Your task to perform on an android device: uninstall "DoorDash - Dasher" Image 0: 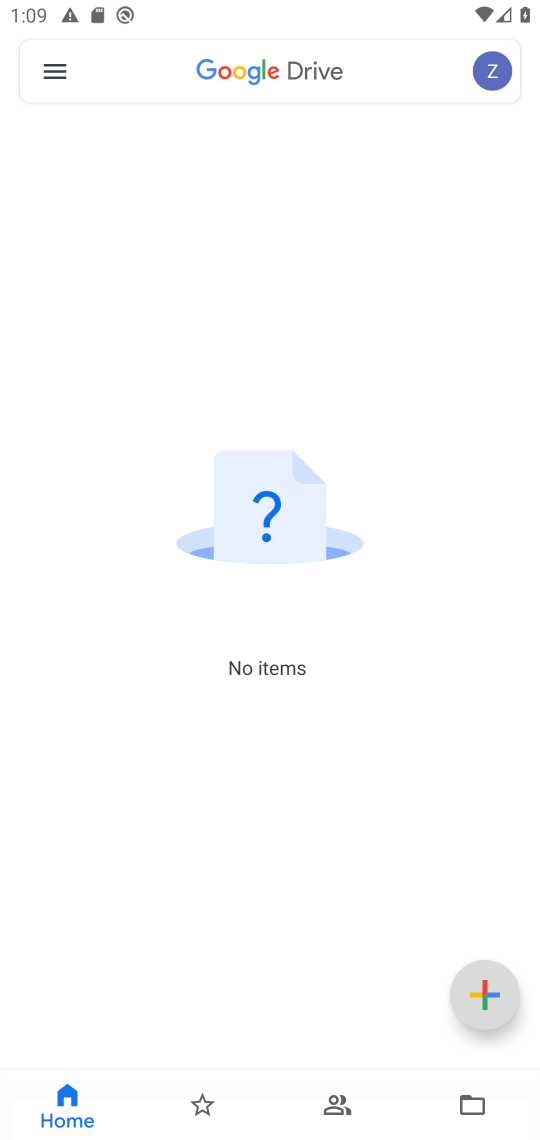
Step 0: press home button
Your task to perform on an android device: uninstall "DoorDash - Dasher" Image 1: 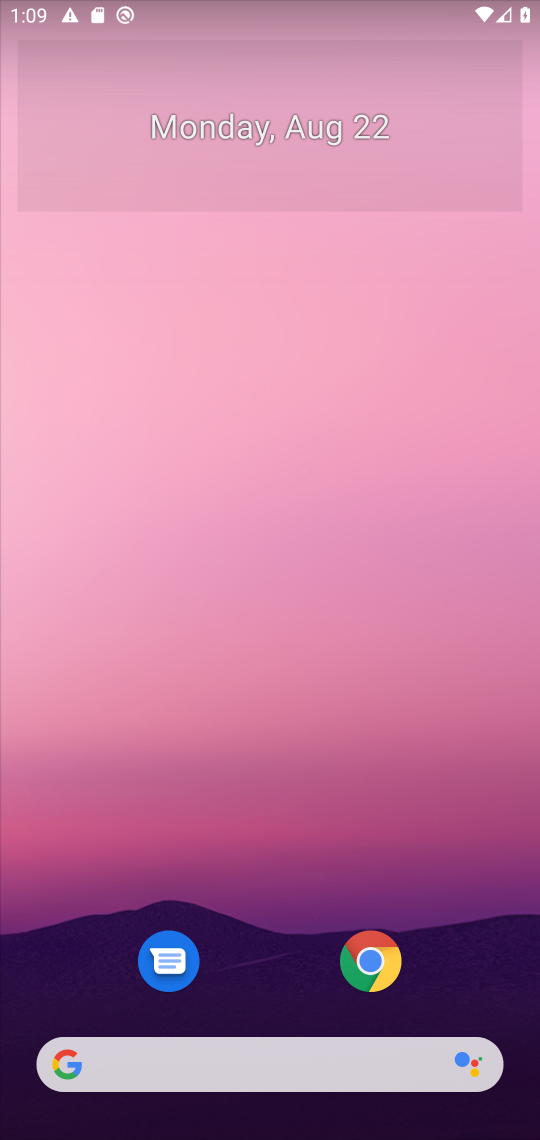
Step 1: drag from (497, 983) to (509, 420)
Your task to perform on an android device: uninstall "DoorDash - Dasher" Image 2: 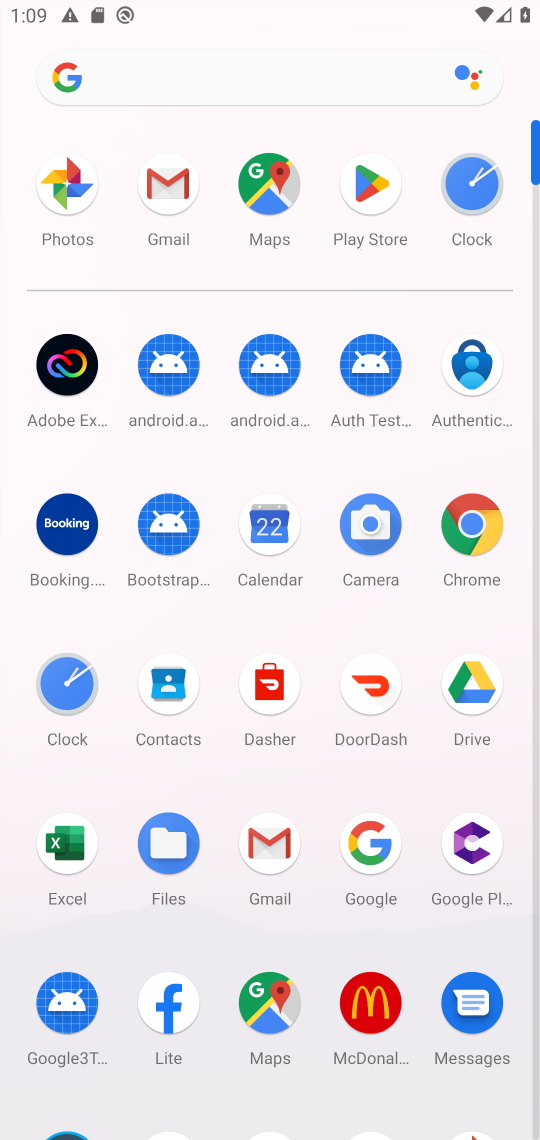
Step 2: click (376, 166)
Your task to perform on an android device: uninstall "DoorDash - Dasher" Image 3: 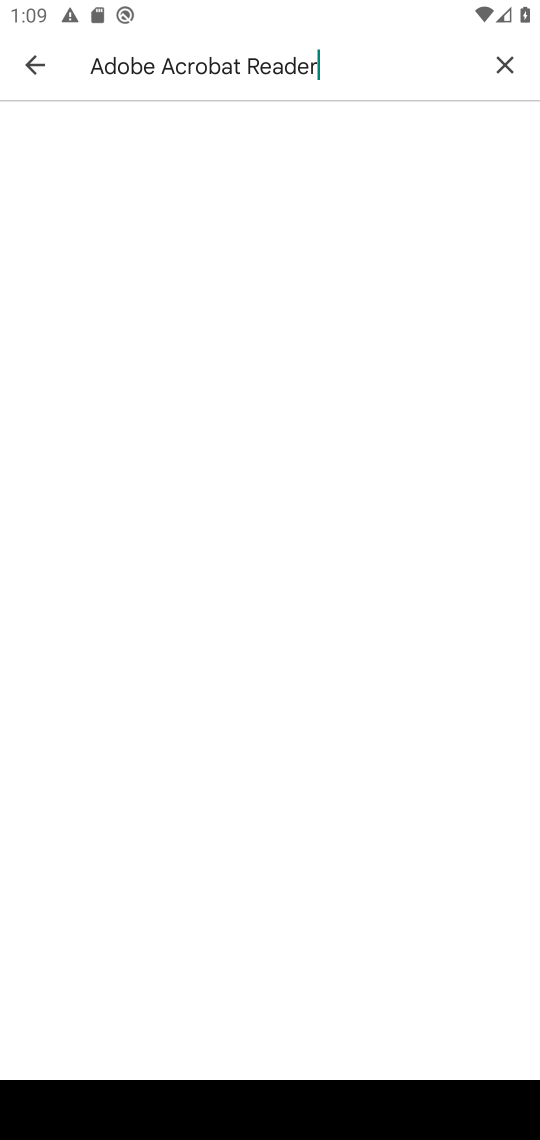
Step 3: press back button
Your task to perform on an android device: uninstall "DoorDash - Dasher" Image 4: 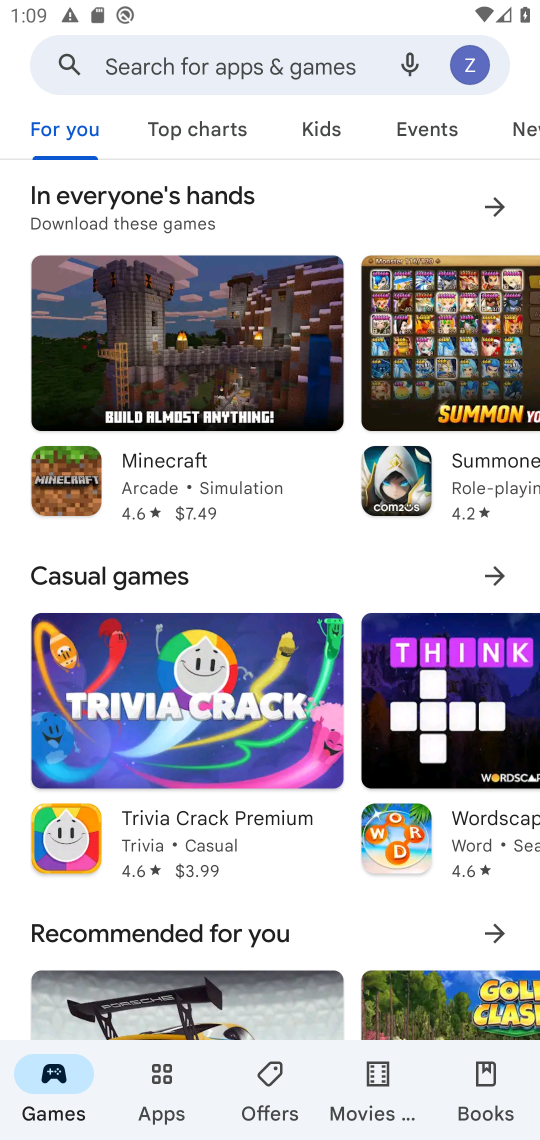
Step 4: click (201, 66)
Your task to perform on an android device: uninstall "DoorDash - Dasher" Image 5: 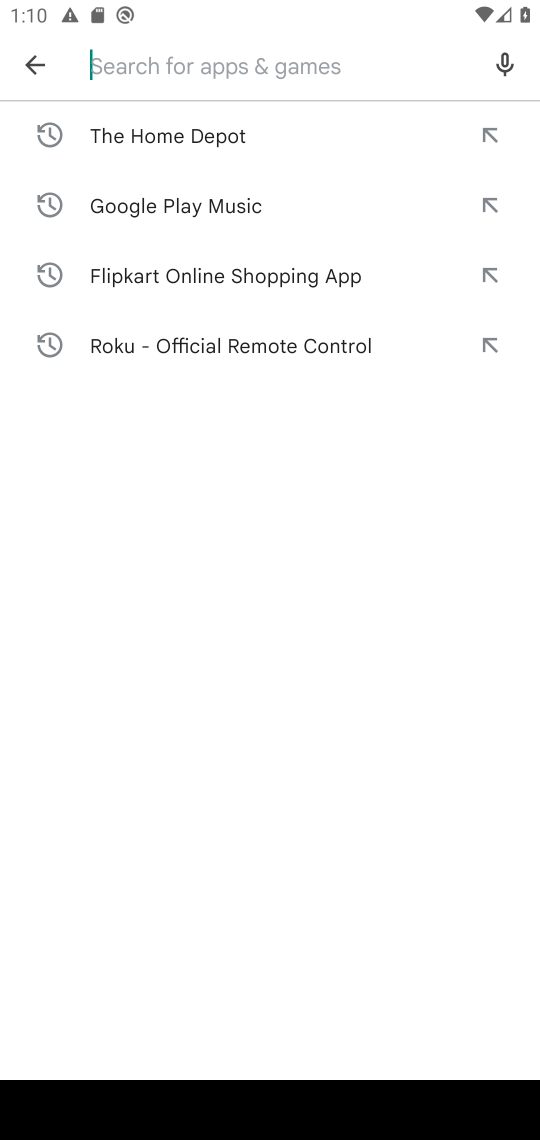
Step 5: type "DoorDash - Dasher"
Your task to perform on an android device: uninstall "DoorDash - Dasher" Image 6: 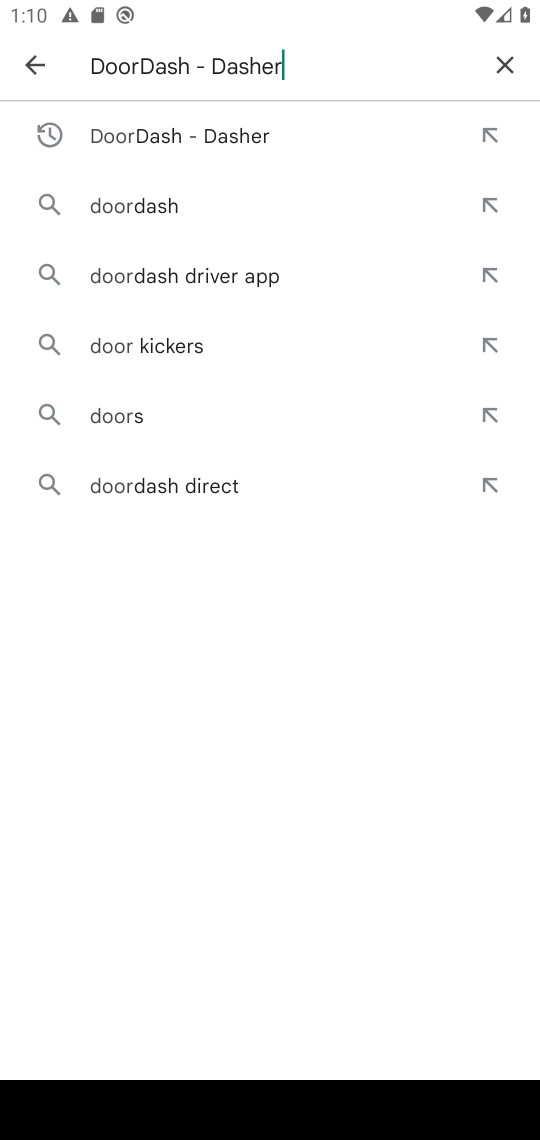
Step 6: press enter
Your task to perform on an android device: uninstall "DoorDash - Dasher" Image 7: 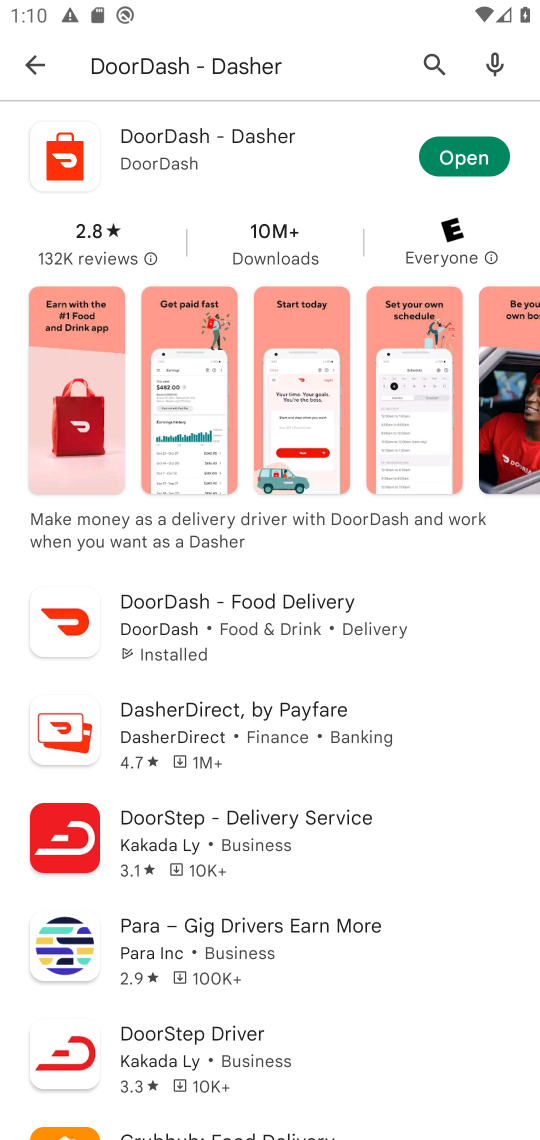
Step 7: task complete